Your task to perform on an android device: turn off javascript in the chrome app Image 0: 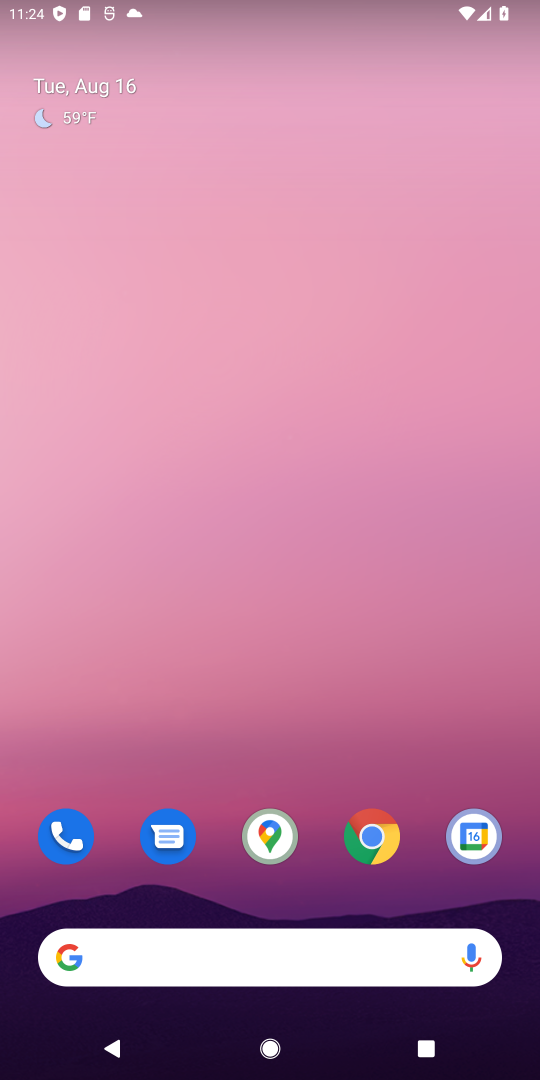
Step 0: click (370, 837)
Your task to perform on an android device: turn off javascript in the chrome app Image 1: 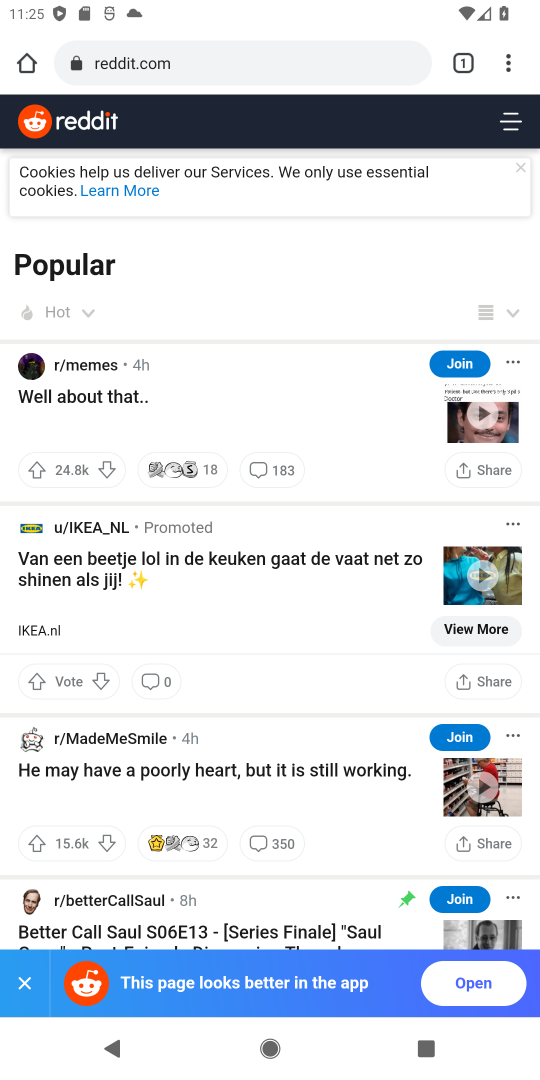
Step 1: click (517, 68)
Your task to perform on an android device: turn off javascript in the chrome app Image 2: 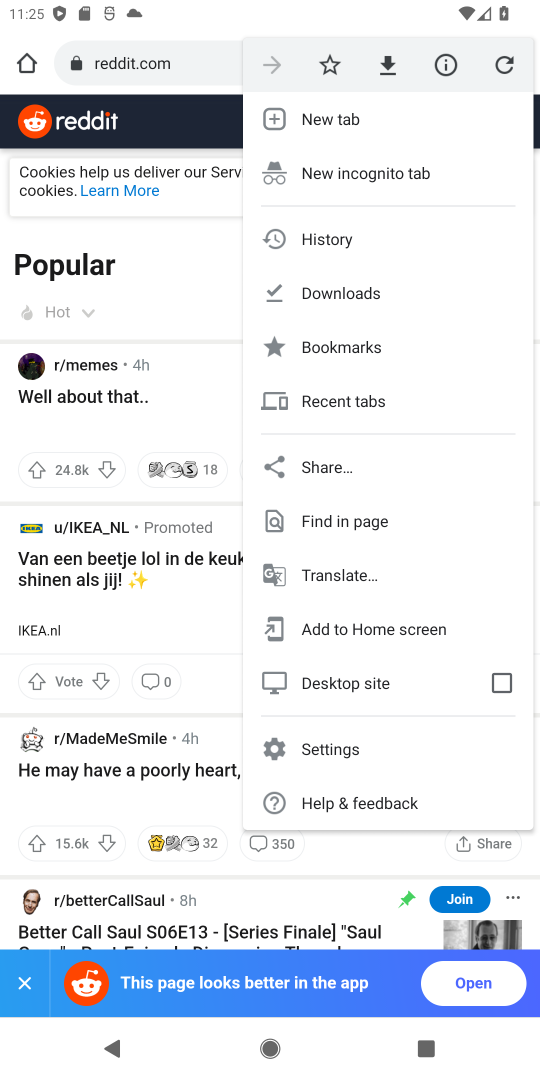
Step 2: click (325, 759)
Your task to perform on an android device: turn off javascript in the chrome app Image 3: 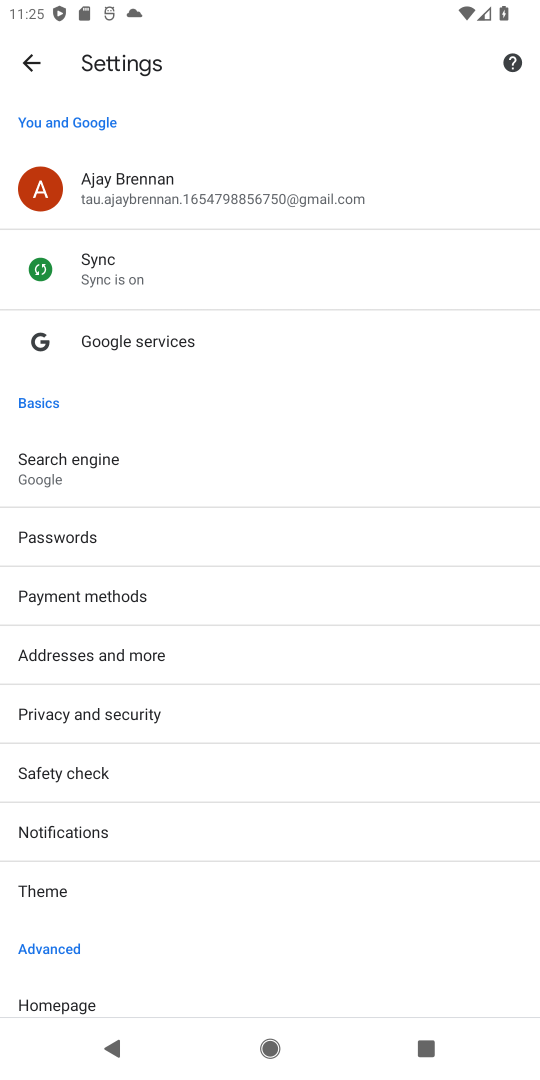
Step 3: drag from (111, 858) to (130, 603)
Your task to perform on an android device: turn off javascript in the chrome app Image 4: 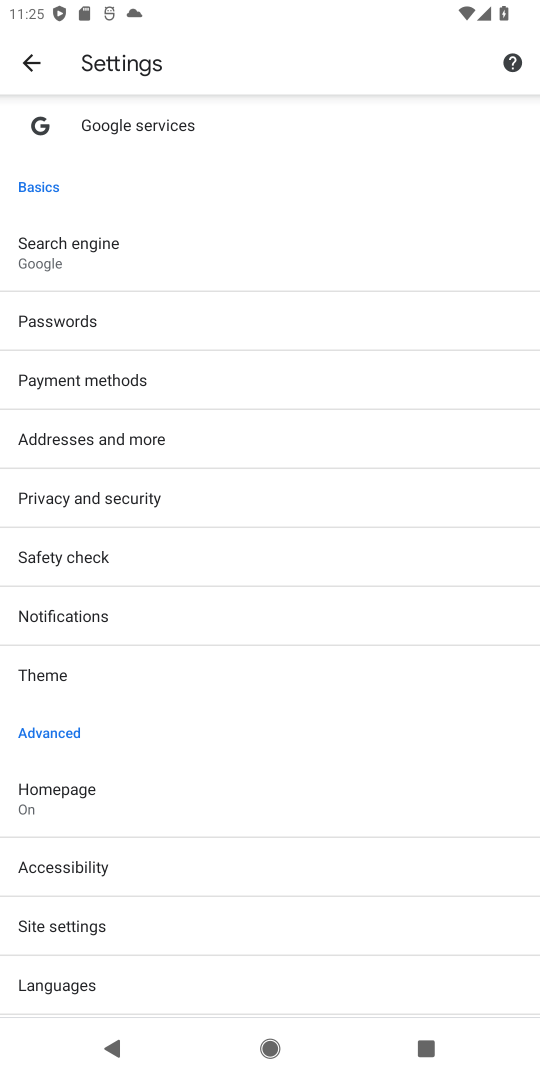
Step 4: click (62, 928)
Your task to perform on an android device: turn off javascript in the chrome app Image 5: 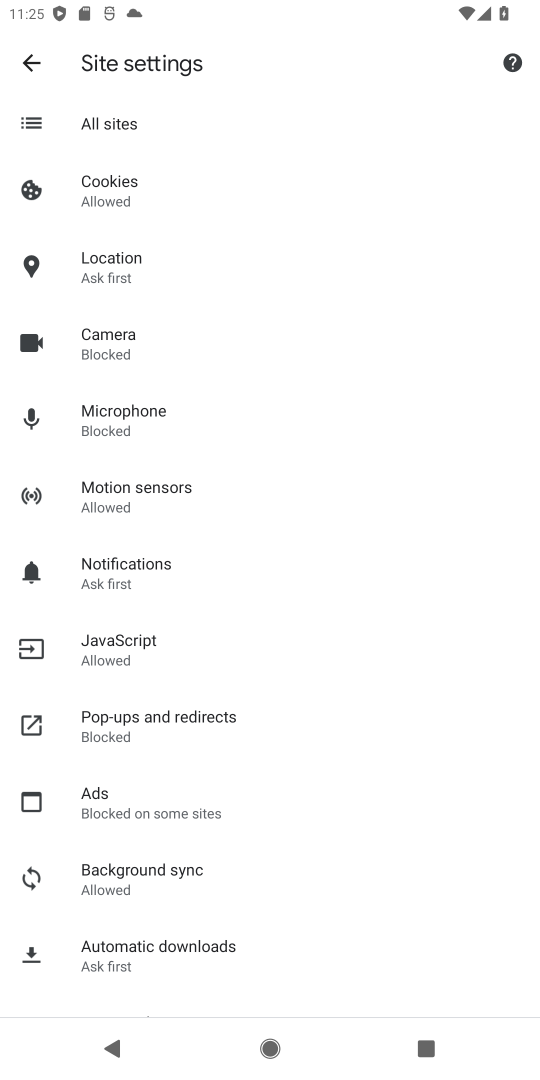
Step 5: click (121, 670)
Your task to perform on an android device: turn off javascript in the chrome app Image 6: 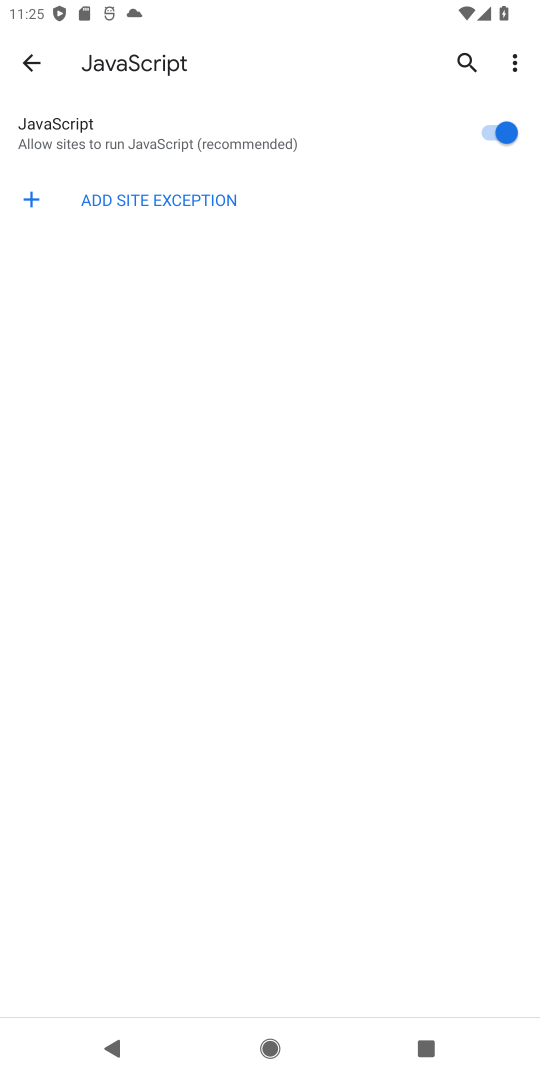
Step 6: click (487, 138)
Your task to perform on an android device: turn off javascript in the chrome app Image 7: 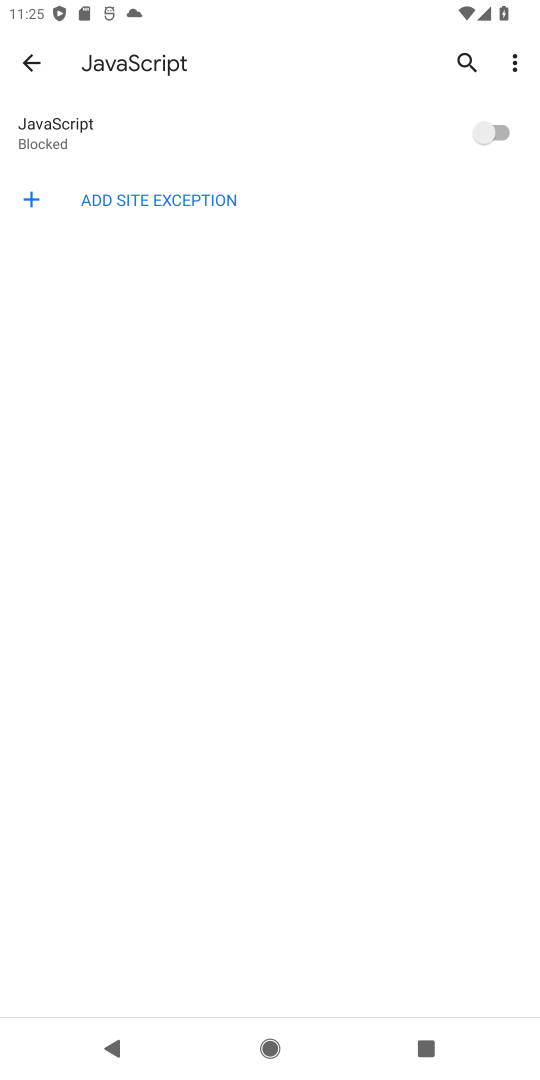
Step 7: task complete